Your task to perform on an android device: Open Yahoo.com Image 0: 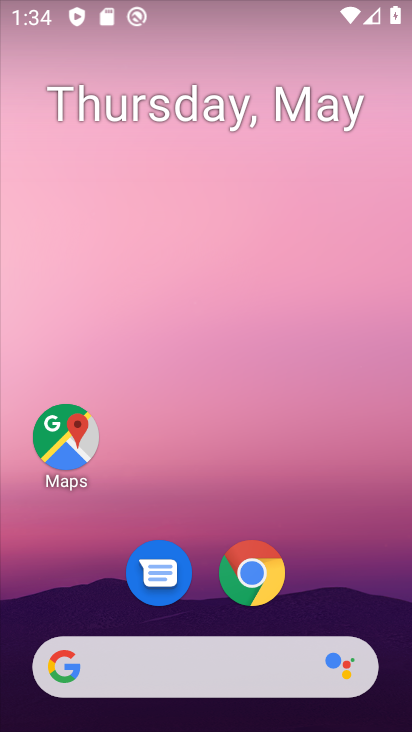
Step 0: click (249, 581)
Your task to perform on an android device: Open Yahoo.com Image 1: 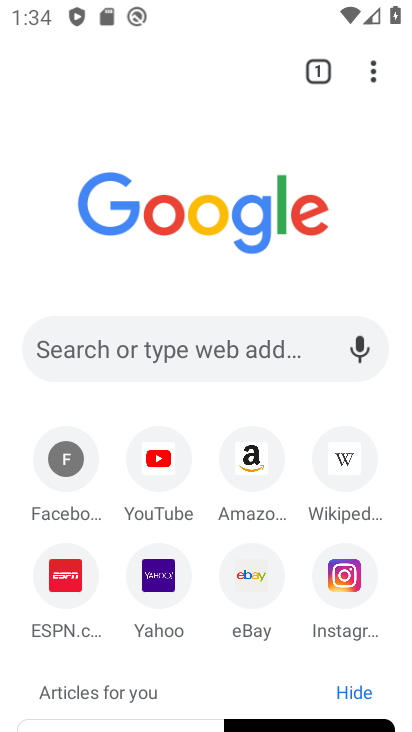
Step 1: click (158, 589)
Your task to perform on an android device: Open Yahoo.com Image 2: 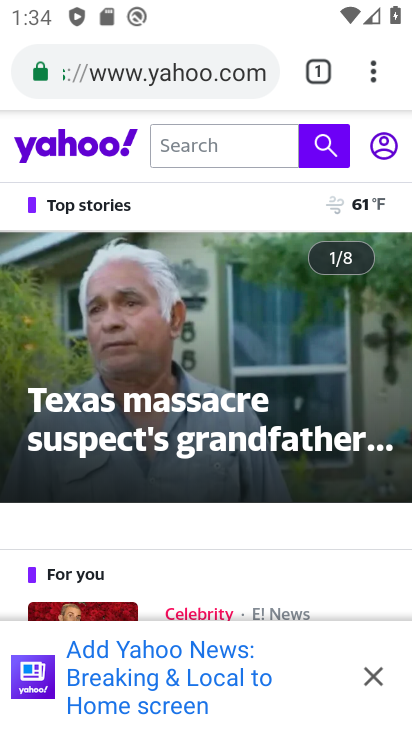
Step 2: task complete